Your task to perform on an android device: uninstall "Etsy: Buy & Sell Unique Items" Image 0: 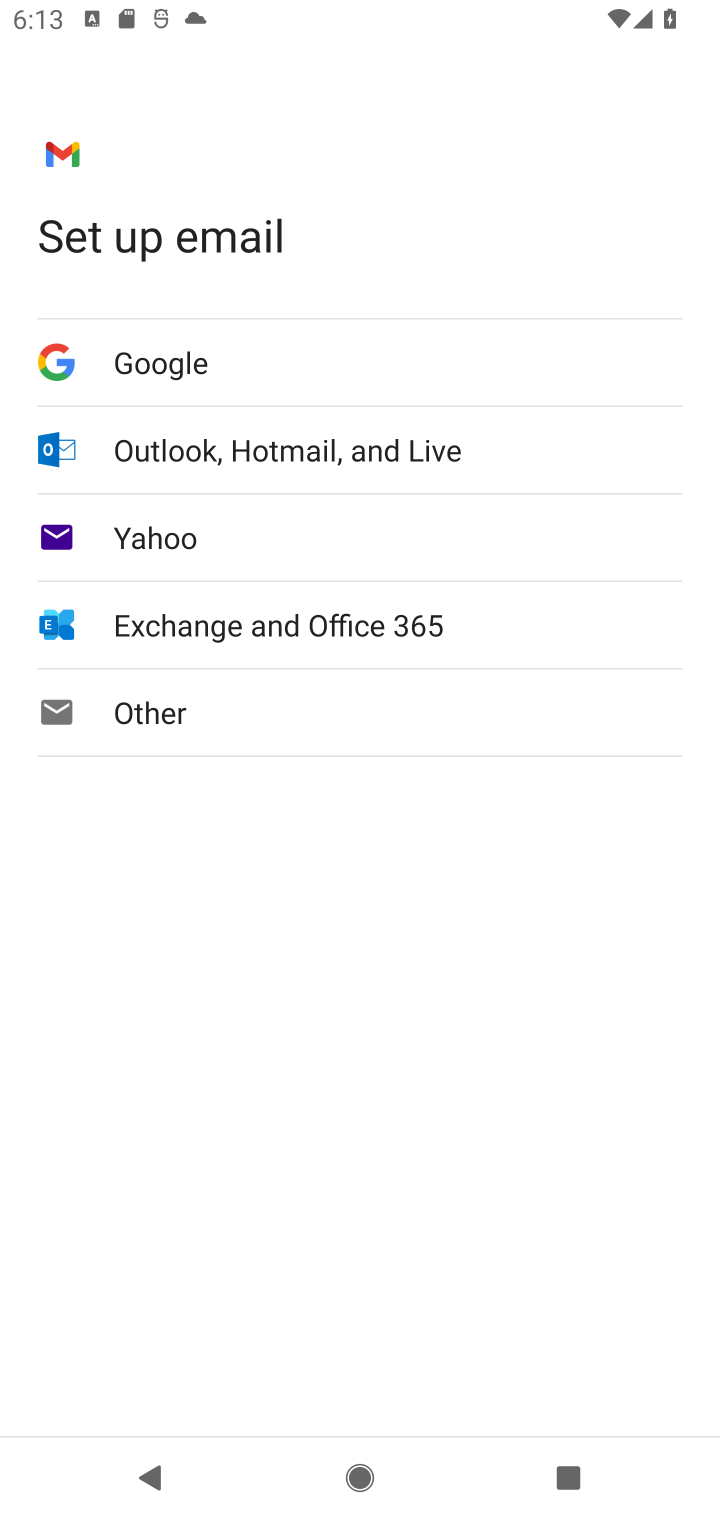
Step 0: press home button
Your task to perform on an android device: uninstall "Etsy: Buy & Sell Unique Items" Image 1: 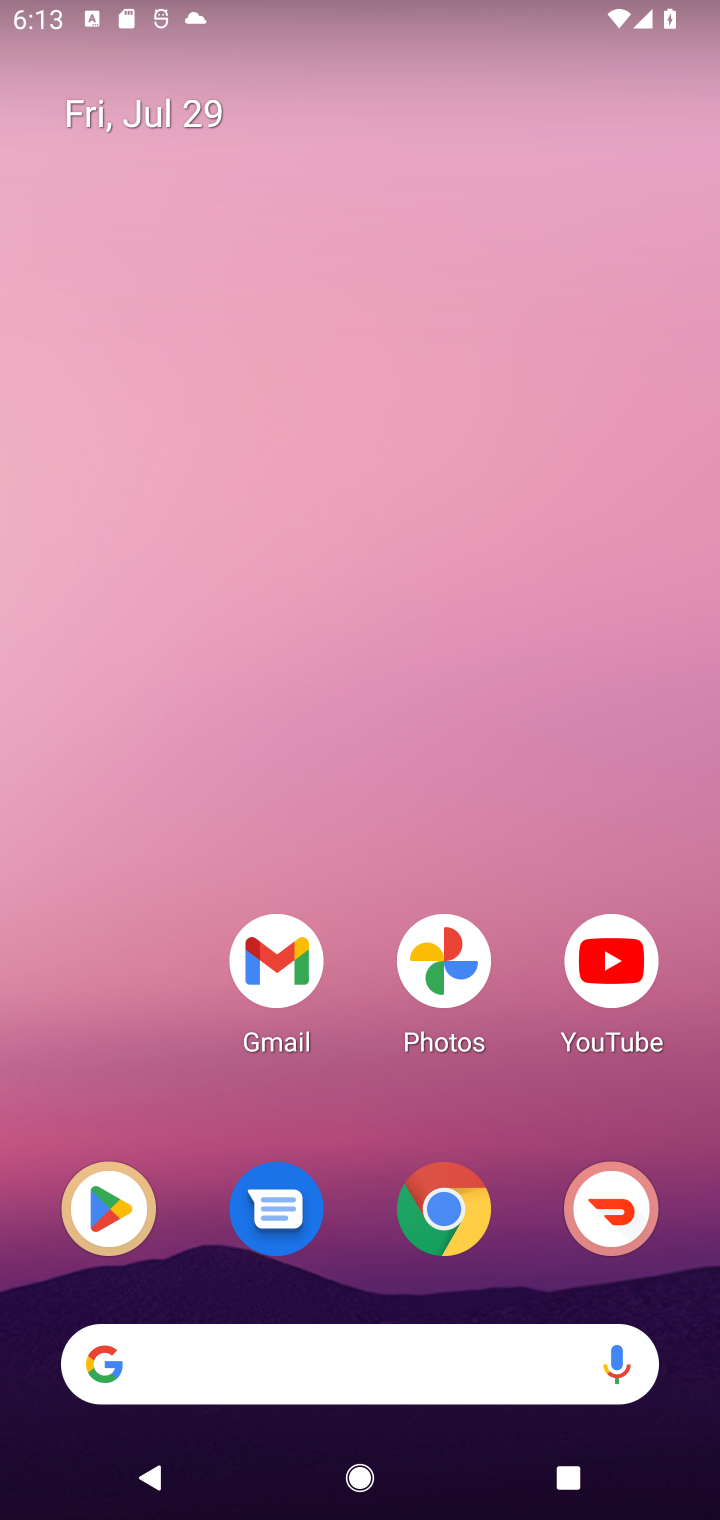
Step 1: click (112, 1208)
Your task to perform on an android device: uninstall "Etsy: Buy & Sell Unique Items" Image 2: 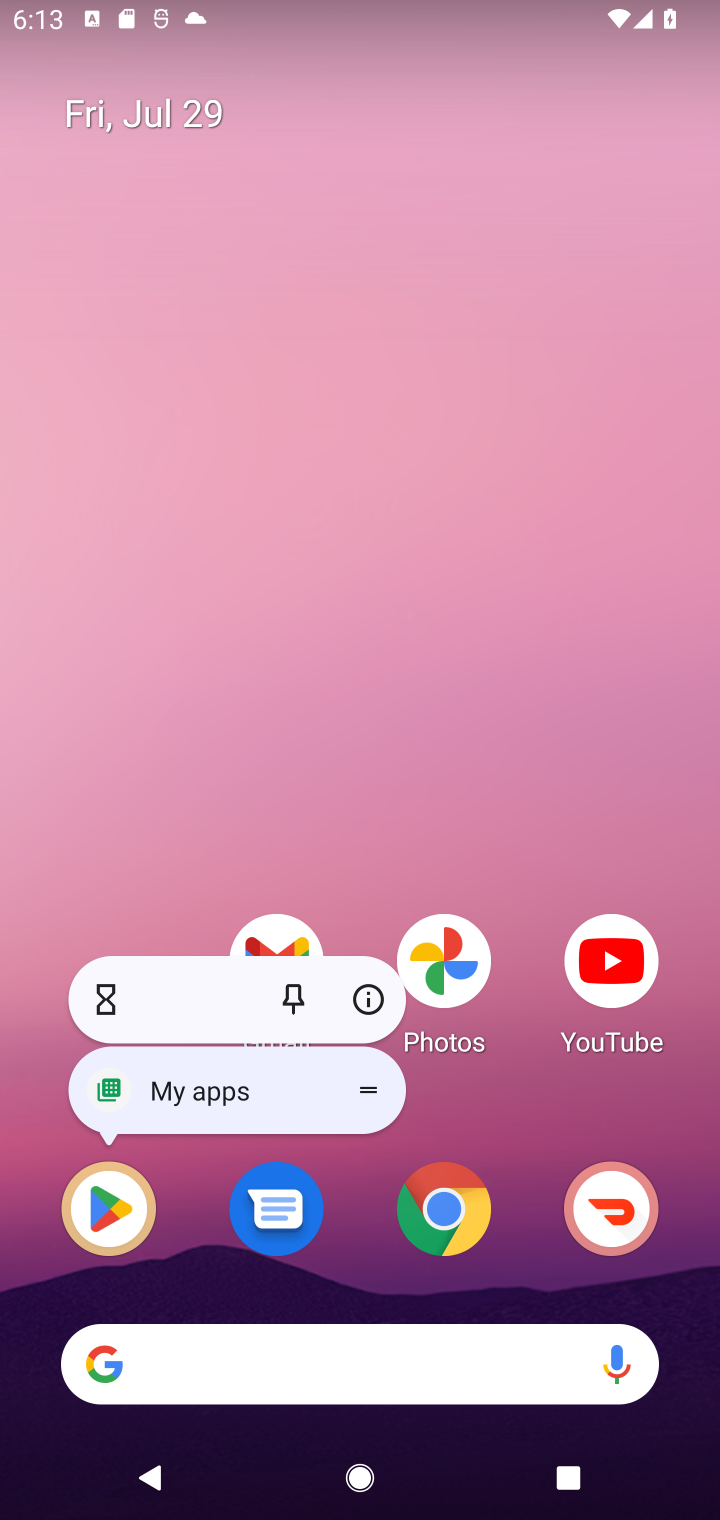
Step 2: click (112, 1208)
Your task to perform on an android device: uninstall "Etsy: Buy & Sell Unique Items" Image 3: 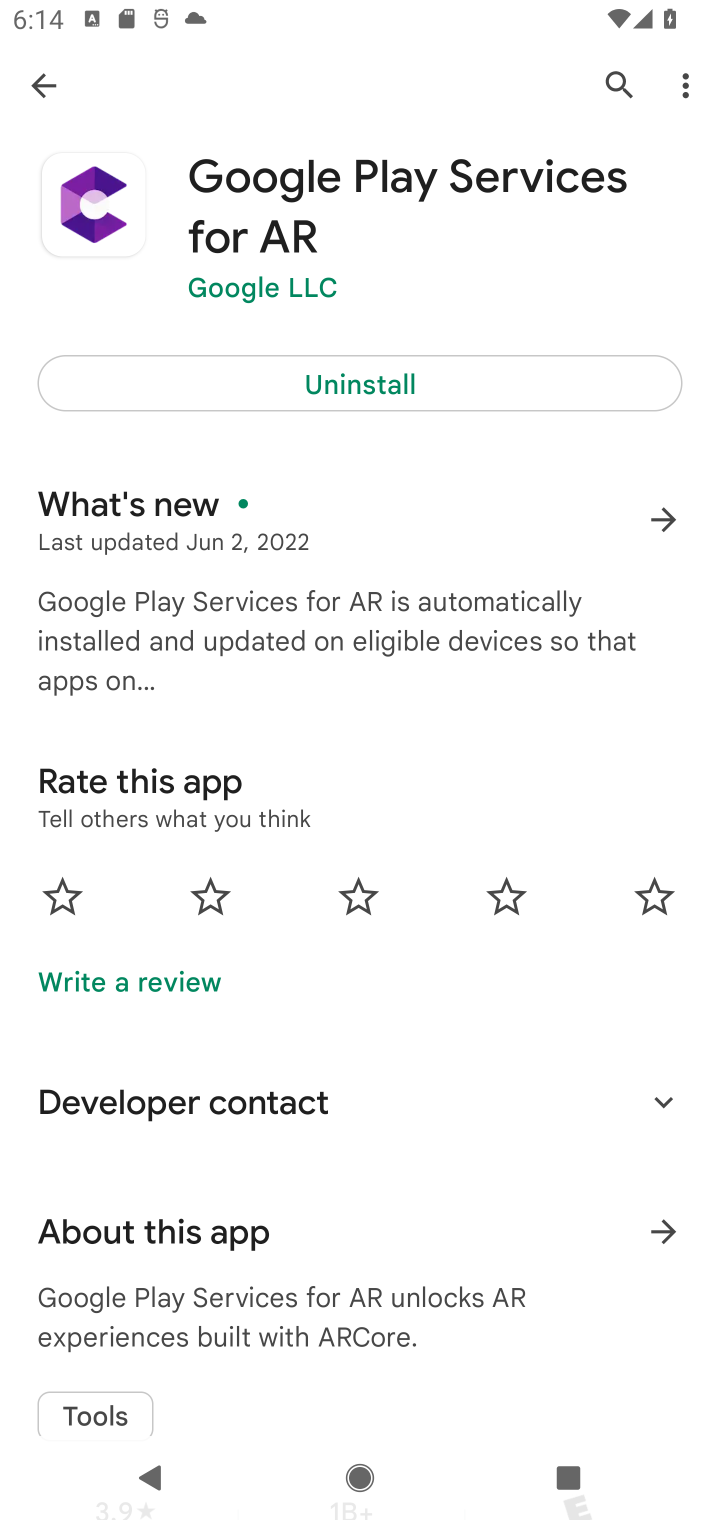
Step 3: click (626, 87)
Your task to perform on an android device: uninstall "Etsy: Buy & Sell Unique Items" Image 4: 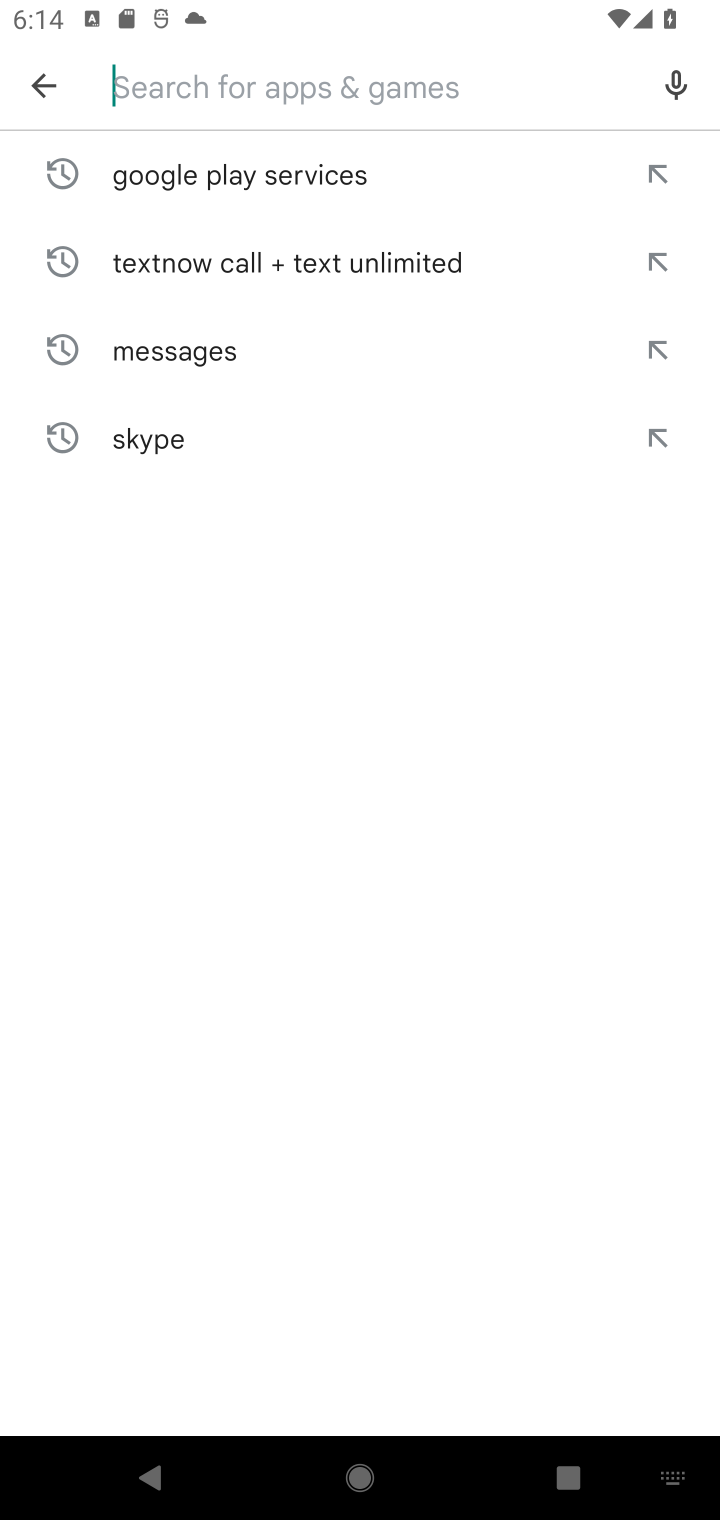
Step 4: click (361, 93)
Your task to perform on an android device: uninstall "Etsy: Buy & Sell Unique Items" Image 5: 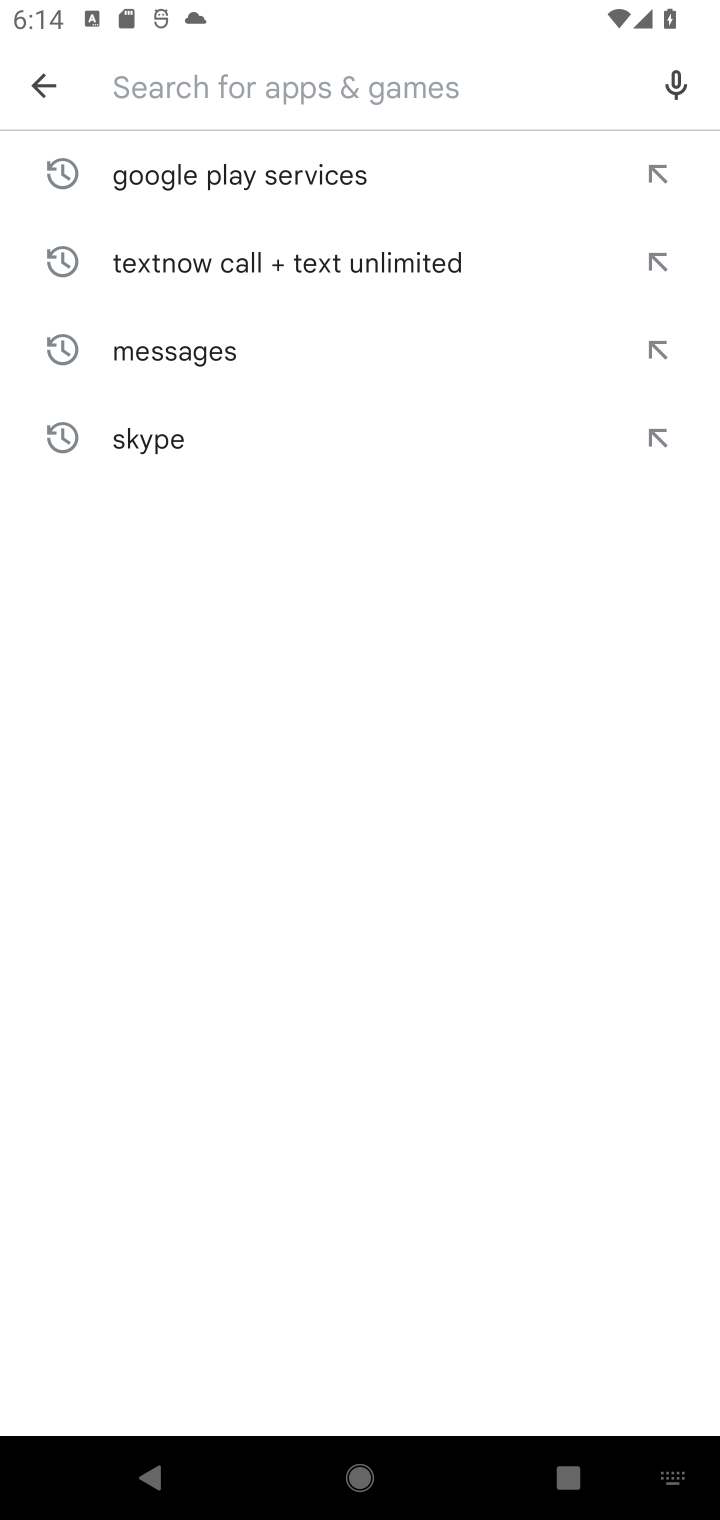
Step 5: type "Etsy: Buy & Sell Unique Items"
Your task to perform on an android device: uninstall "Etsy: Buy & Sell Unique Items" Image 6: 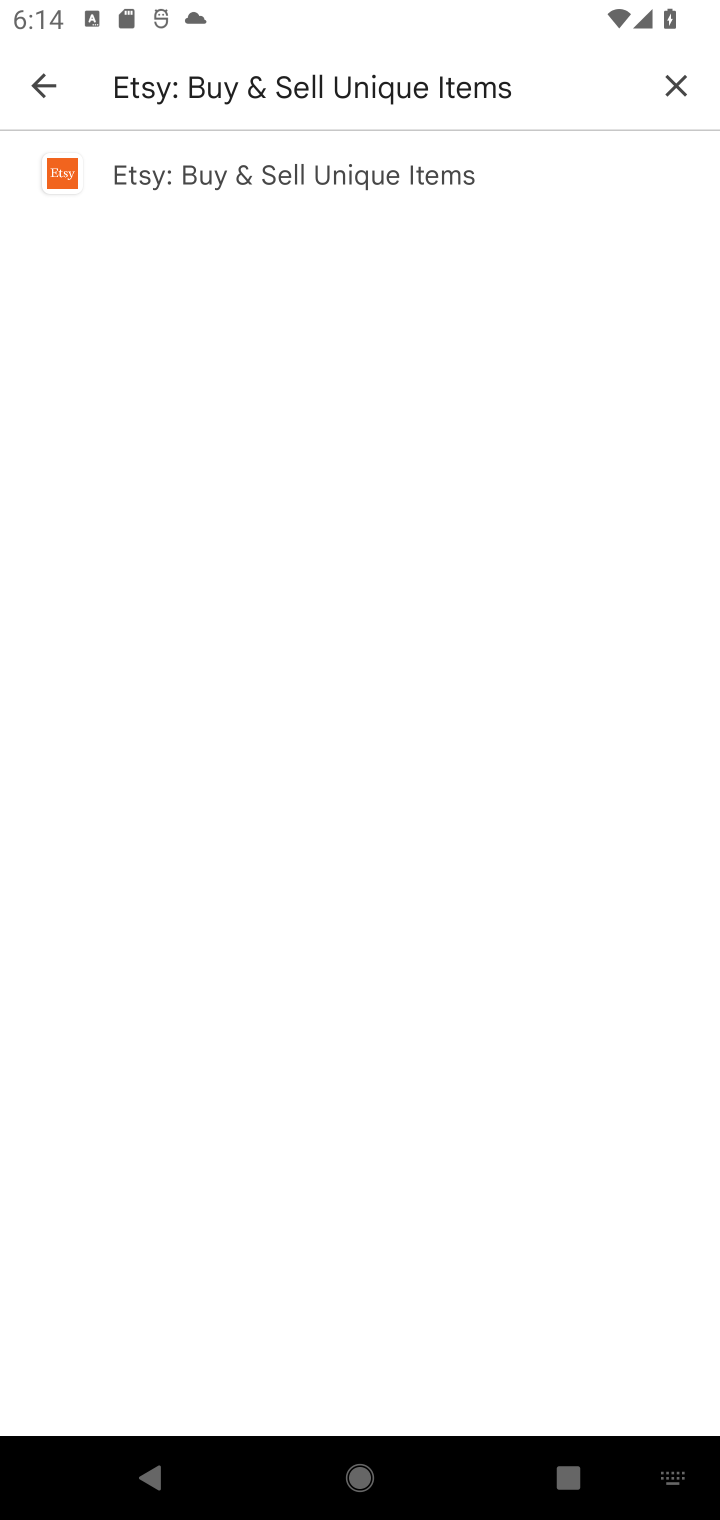
Step 6: click (260, 186)
Your task to perform on an android device: uninstall "Etsy: Buy & Sell Unique Items" Image 7: 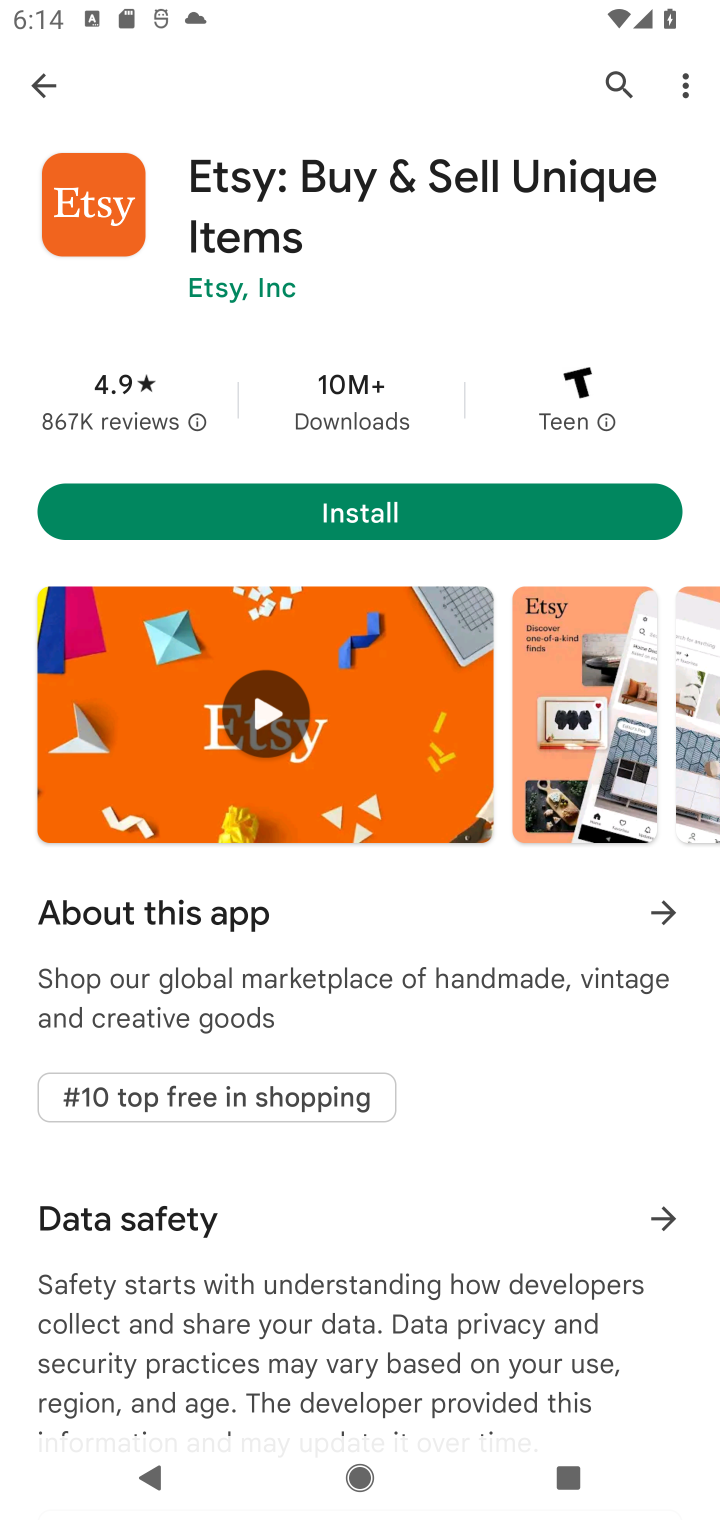
Step 7: task complete